Your task to perform on an android device: Go to eBay Image 0: 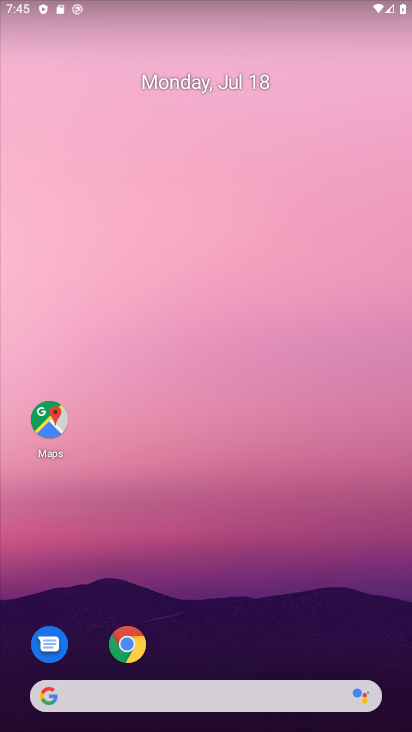
Step 0: press home button
Your task to perform on an android device: Go to eBay Image 1: 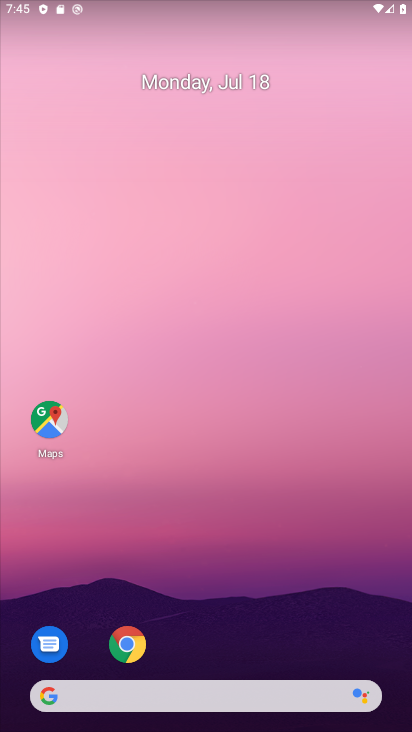
Step 1: click (129, 642)
Your task to perform on an android device: Go to eBay Image 2: 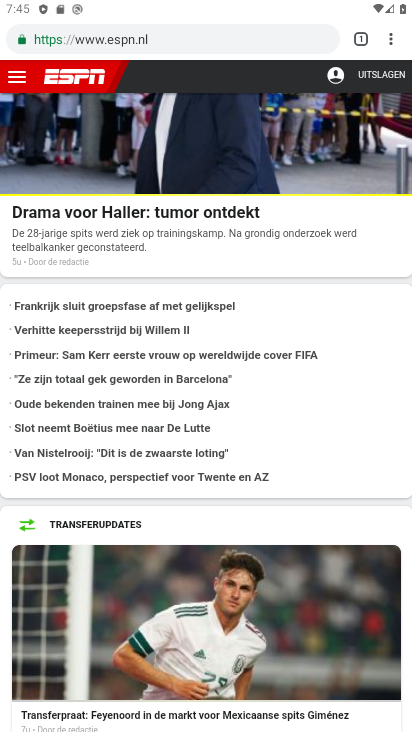
Step 2: click (357, 32)
Your task to perform on an android device: Go to eBay Image 3: 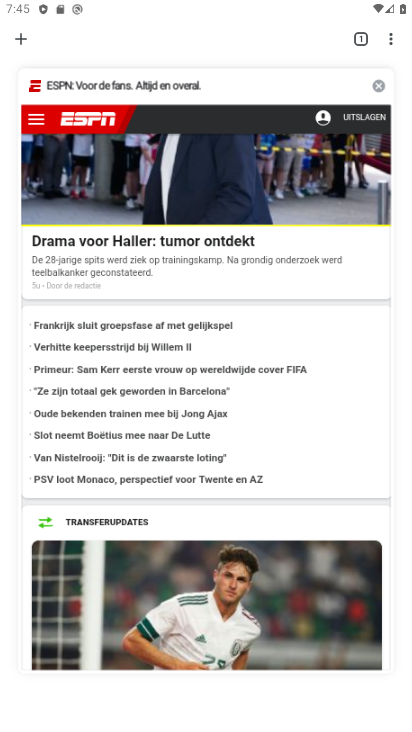
Step 3: click (16, 37)
Your task to perform on an android device: Go to eBay Image 4: 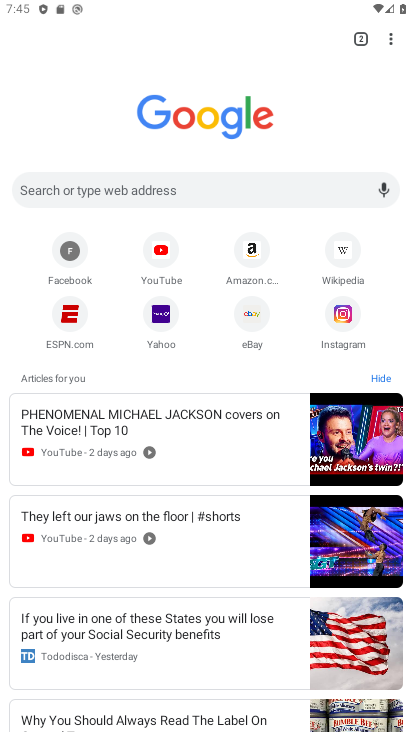
Step 4: click (250, 314)
Your task to perform on an android device: Go to eBay Image 5: 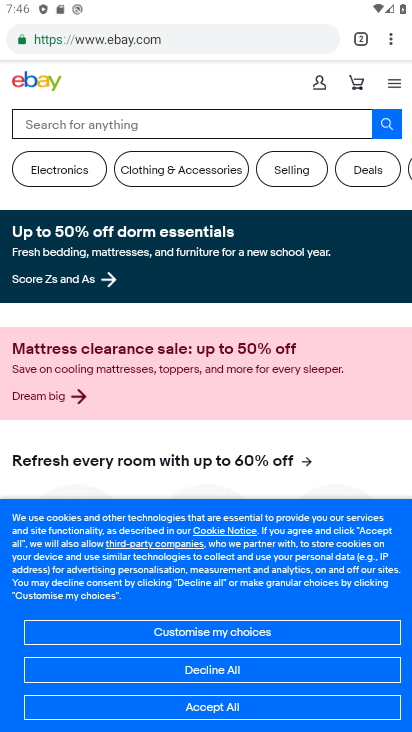
Step 5: click (205, 708)
Your task to perform on an android device: Go to eBay Image 6: 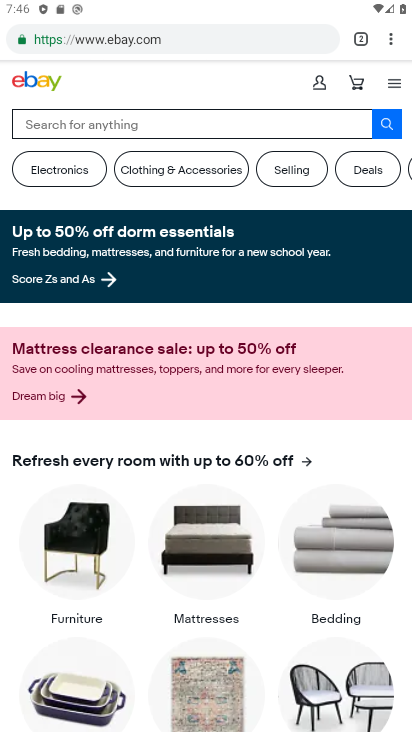
Step 6: task complete